Your task to perform on an android device: turn off data saver in the chrome app Image 0: 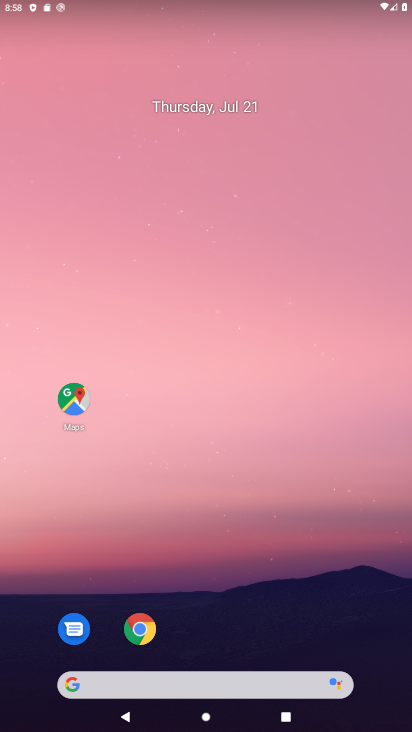
Step 0: click (150, 614)
Your task to perform on an android device: turn off data saver in the chrome app Image 1: 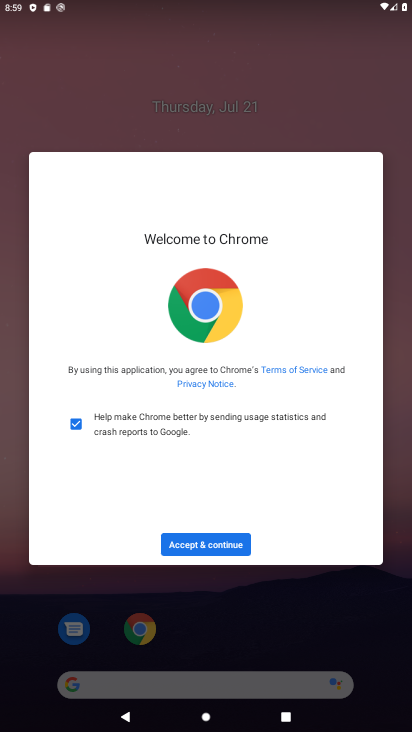
Step 1: click (205, 535)
Your task to perform on an android device: turn off data saver in the chrome app Image 2: 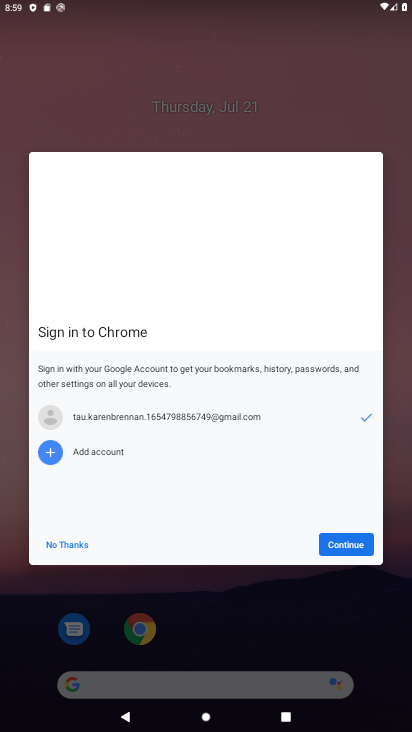
Step 2: click (363, 552)
Your task to perform on an android device: turn off data saver in the chrome app Image 3: 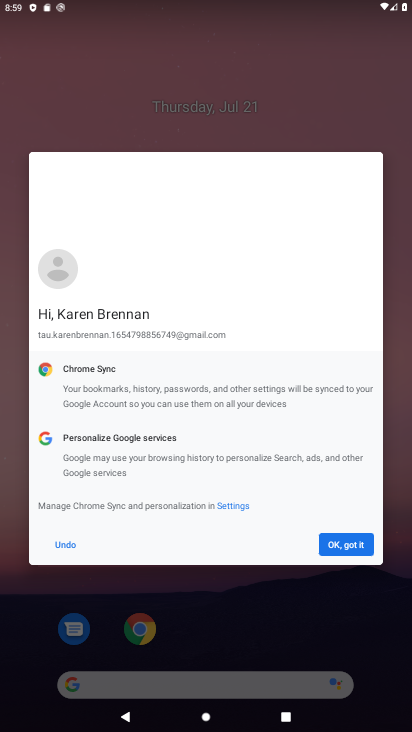
Step 3: click (370, 541)
Your task to perform on an android device: turn off data saver in the chrome app Image 4: 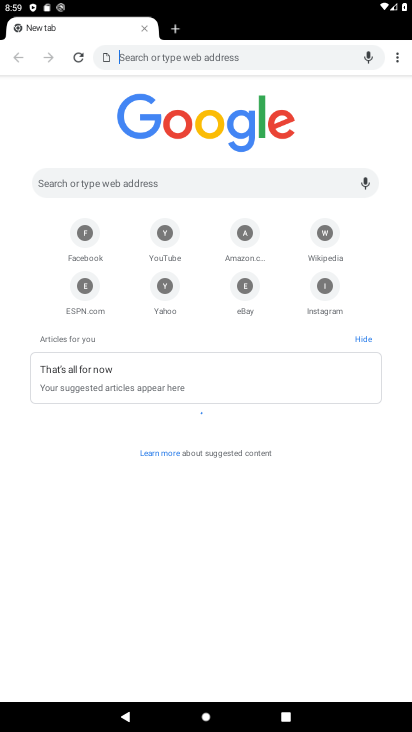
Step 4: click (399, 59)
Your task to perform on an android device: turn off data saver in the chrome app Image 5: 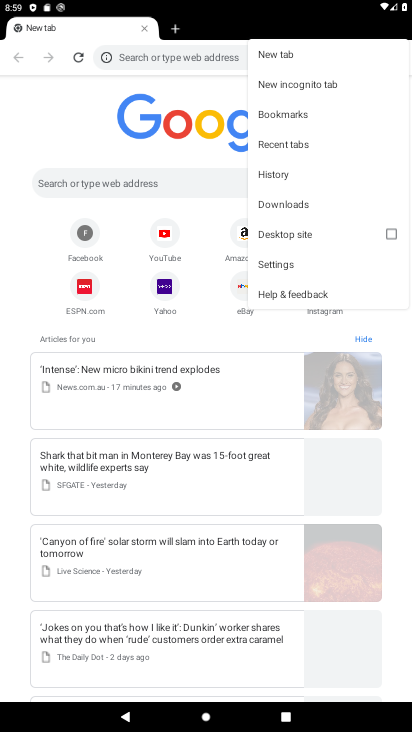
Step 5: click (283, 258)
Your task to perform on an android device: turn off data saver in the chrome app Image 6: 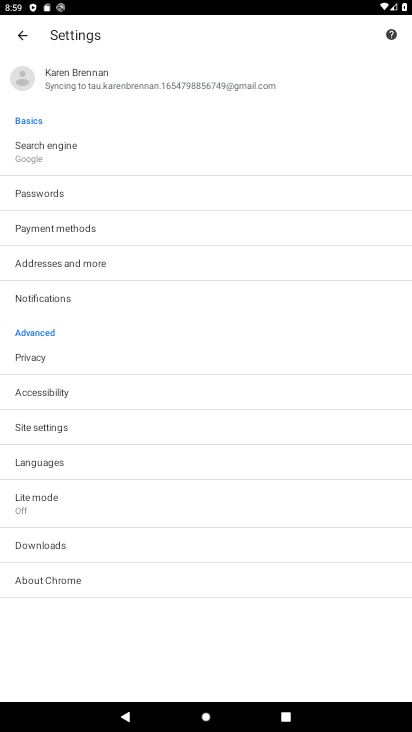
Step 6: click (172, 513)
Your task to perform on an android device: turn off data saver in the chrome app Image 7: 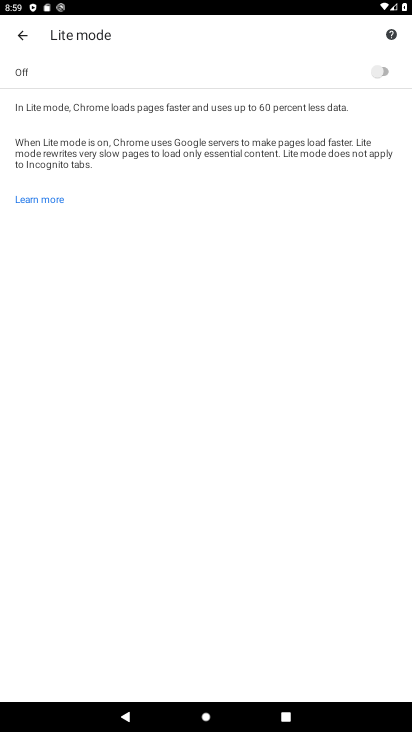
Step 7: task complete